Your task to perform on an android device: turn off picture-in-picture Image 0: 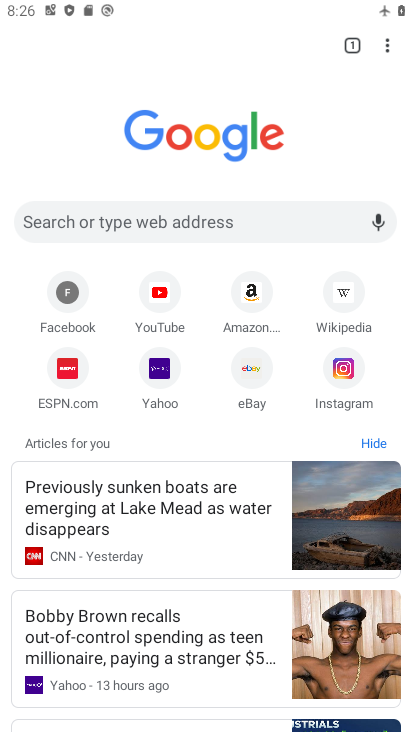
Step 0: press home button
Your task to perform on an android device: turn off picture-in-picture Image 1: 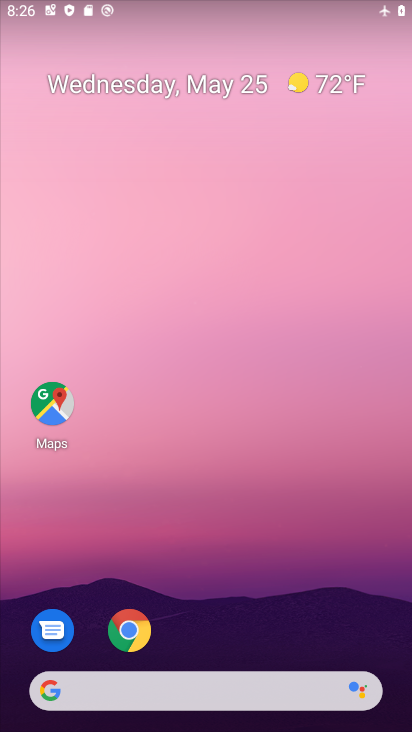
Step 1: click (137, 627)
Your task to perform on an android device: turn off picture-in-picture Image 2: 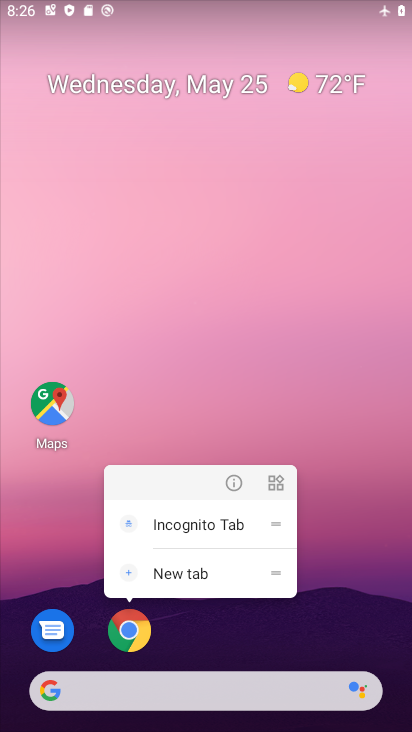
Step 2: click (225, 484)
Your task to perform on an android device: turn off picture-in-picture Image 3: 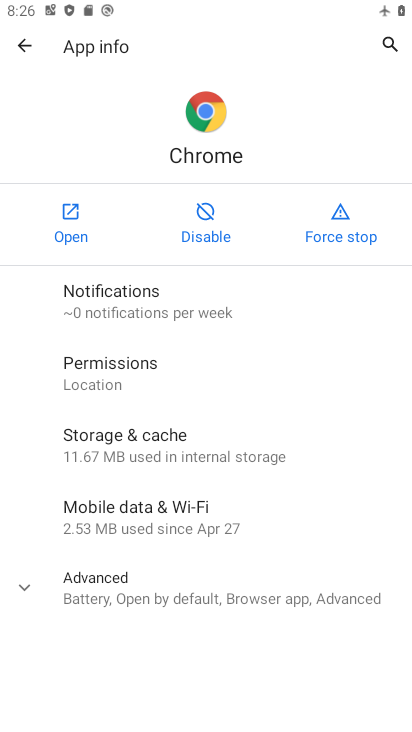
Step 3: drag from (238, 621) to (267, 386)
Your task to perform on an android device: turn off picture-in-picture Image 4: 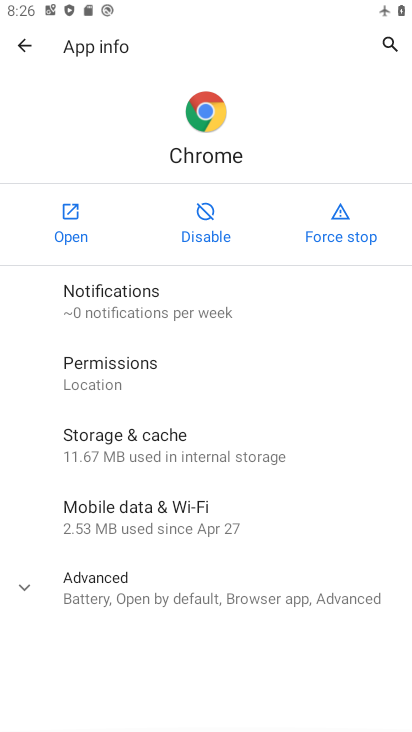
Step 4: click (201, 594)
Your task to perform on an android device: turn off picture-in-picture Image 5: 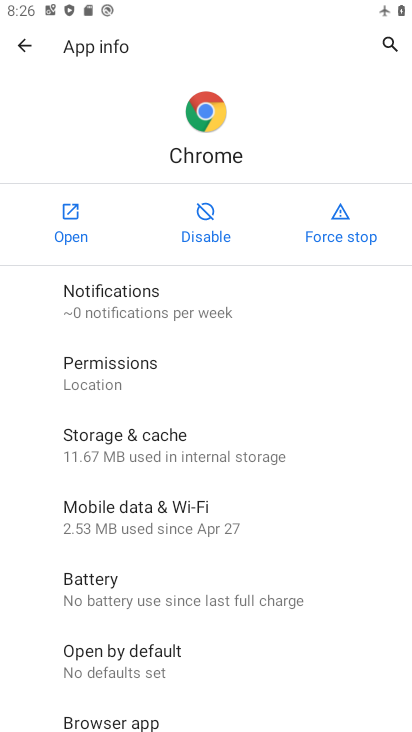
Step 5: drag from (204, 688) to (268, 379)
Your task to perform on an android device: turn off picture-in-picture Image 6: 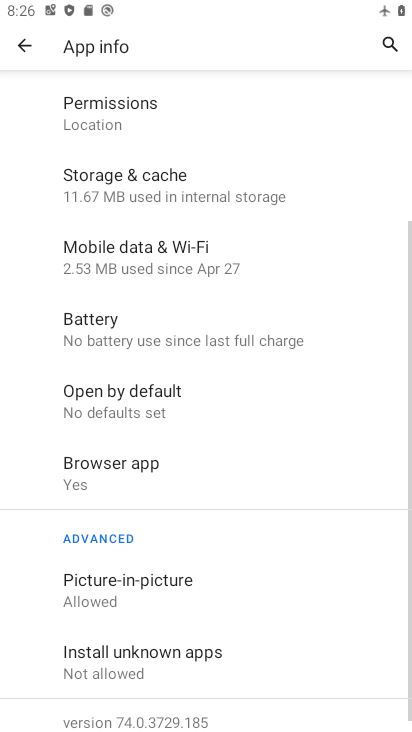
Step 6: drag from (230, 645) to (252, 472)
Your task to perform on an android device: turn off picture-in-picture Image 7: 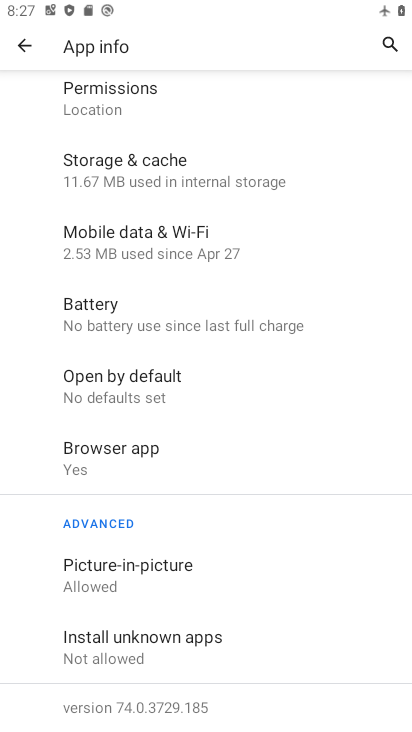
Step 7: click (161, 558)
Your task to perform on an android device: turn off picture-in-picture Image 8: 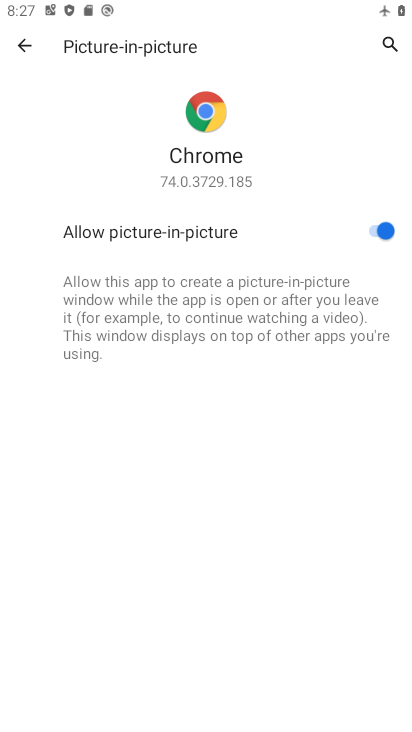
Step 8: click (369, 221)
Your task to perform on an android device: turn off picture-in-picture Image 9: 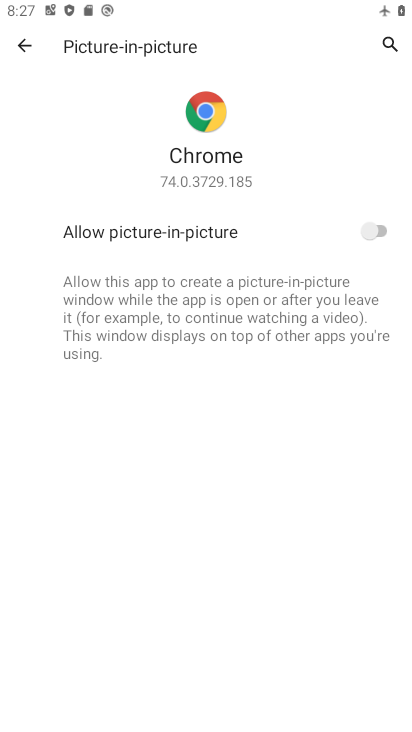
Step 9: task complete